Your task to perform on an android device: Turn off the flashlight Image 0: 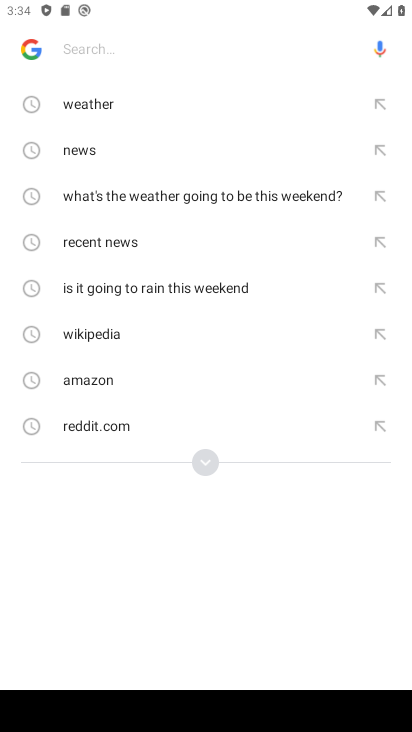
Step 0: press home button
Your task to perform on an android device: Turn off the flashlight Image 1: 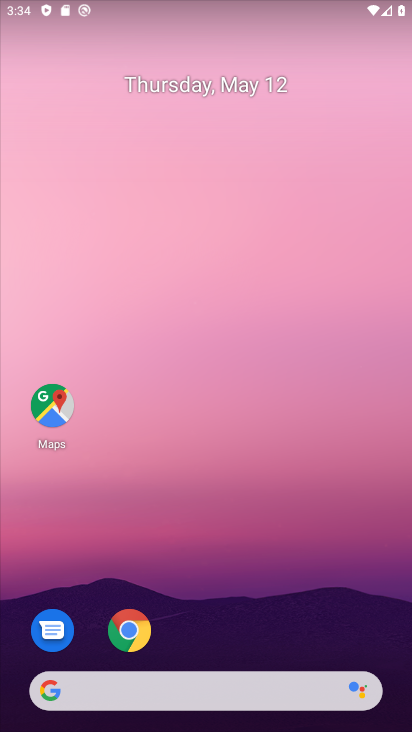
Step 1: drag from (174, 600) to (289, 2)
Your task to perform on an android device: Turn off the flashlight Image 2: 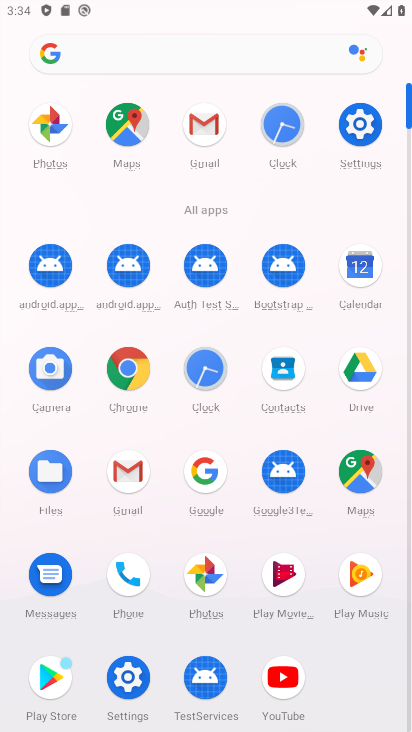
Step 2: click (345, 182)
Your task to perform on an android device: Turn off the flashlight Image 3: 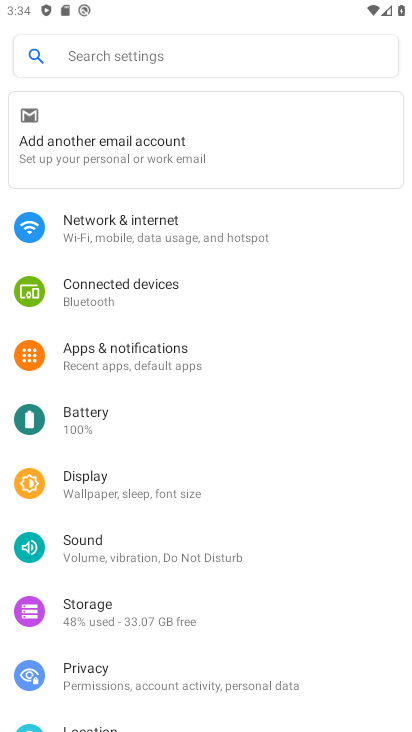
Step 3: click (185, 43)
Your task to perform on an android device: Turn off the flashlight Image 4: 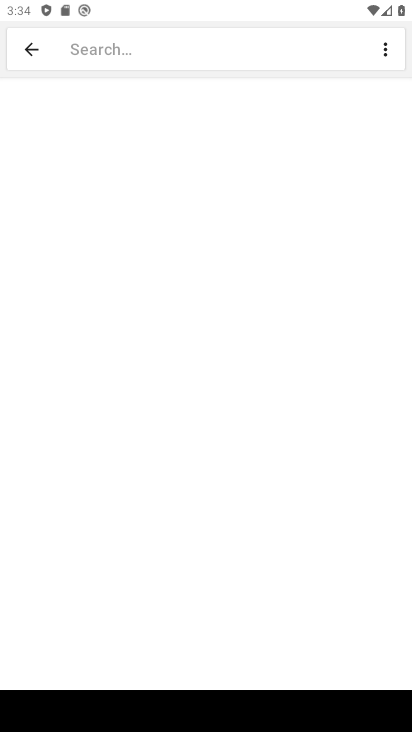
Step 4: type "flashlight"
Your task to perform on an android device: Turn off the flashlight Image 5: 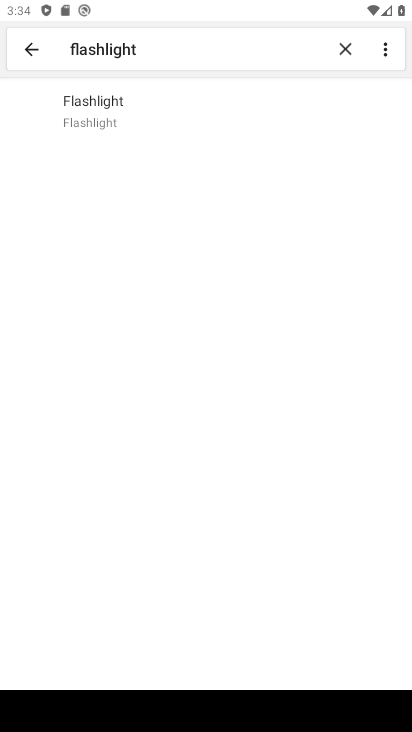
Step 5: click (175, 141)
Your task to perform on an android device: Turn off the flashlight Image 6: 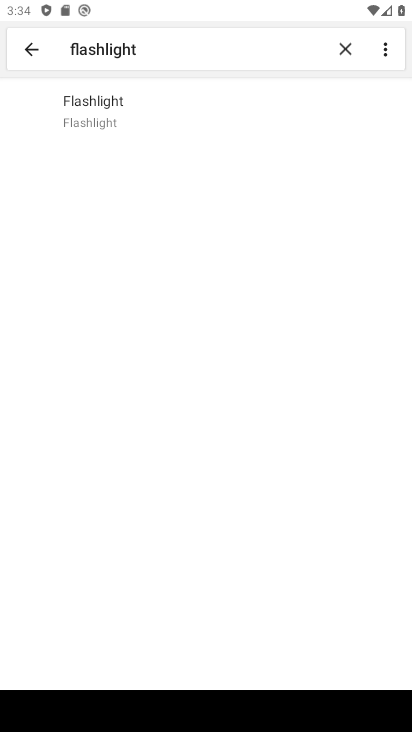
Step 6: click (165, 117)
Your task to perform on an android device: Turn off the flashlight Image 7: 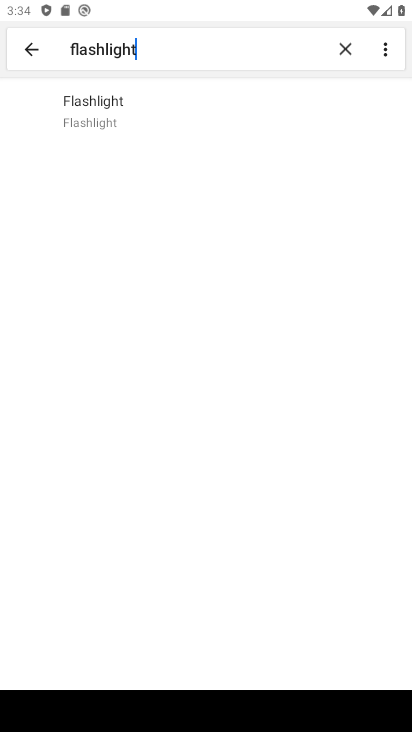
Step 7: task complete